Your task to perform on an android device: open app "Messenger Lite" Image 0: 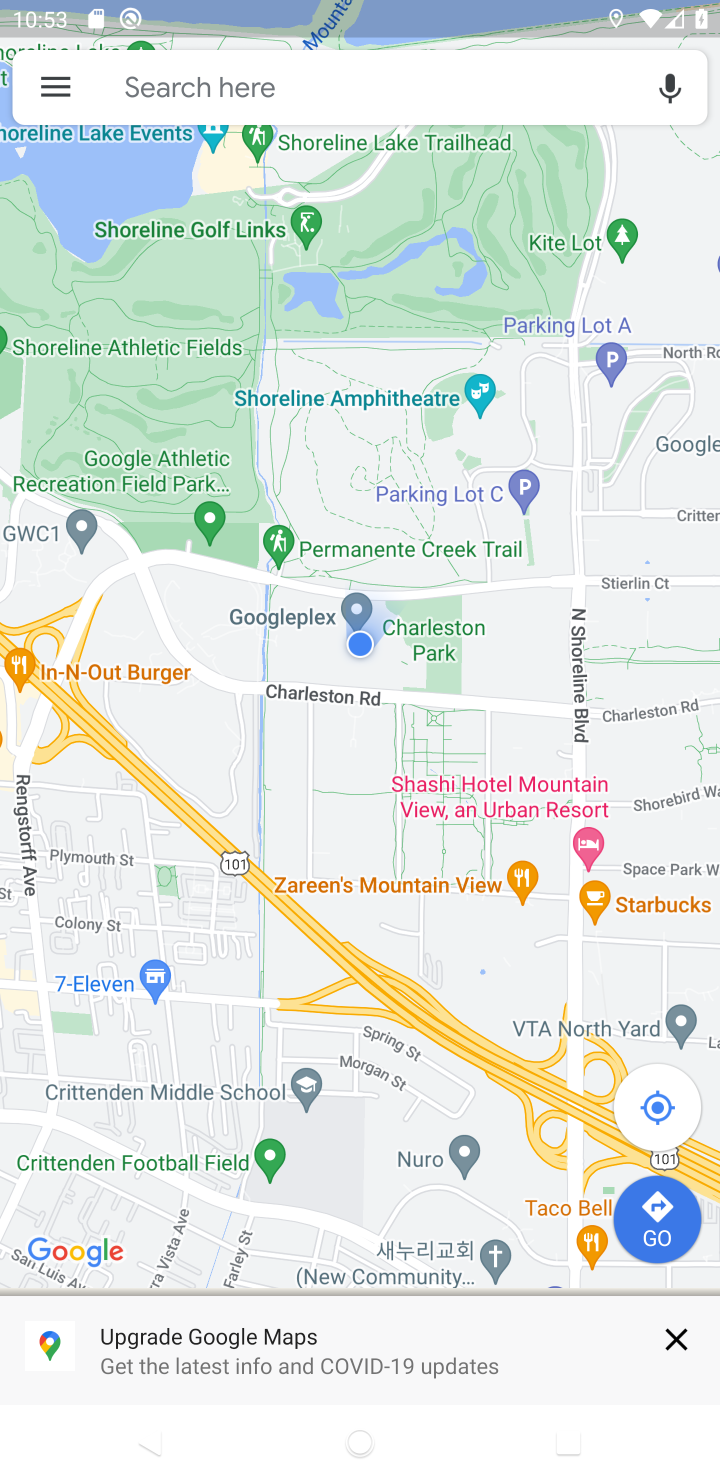
Step 0: press home button
Your task to perform on an android device: open app "Messenger Lite" Image 1: 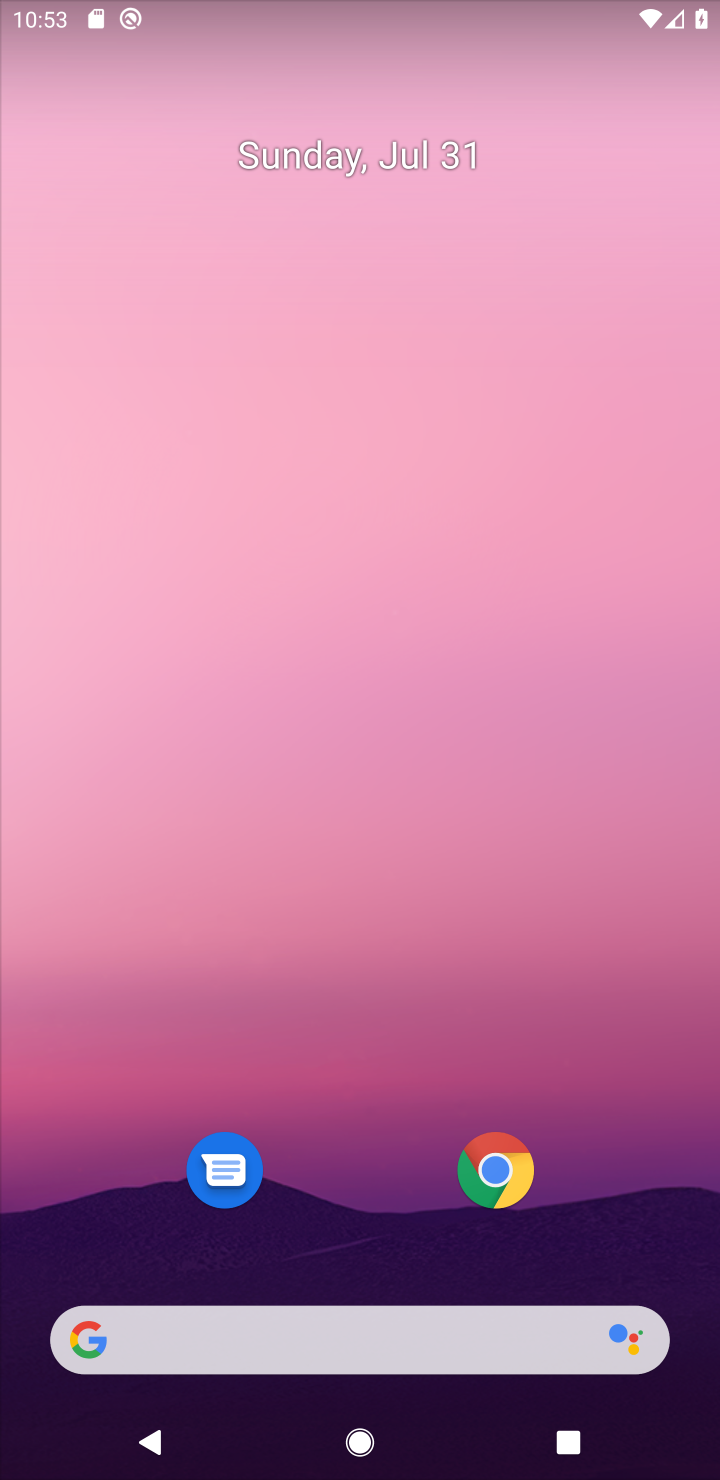
Step 1: drag from (574, 1088) to (366, 49)
Your task to perform on an android device: open app "Messenger Lite" Image 2: 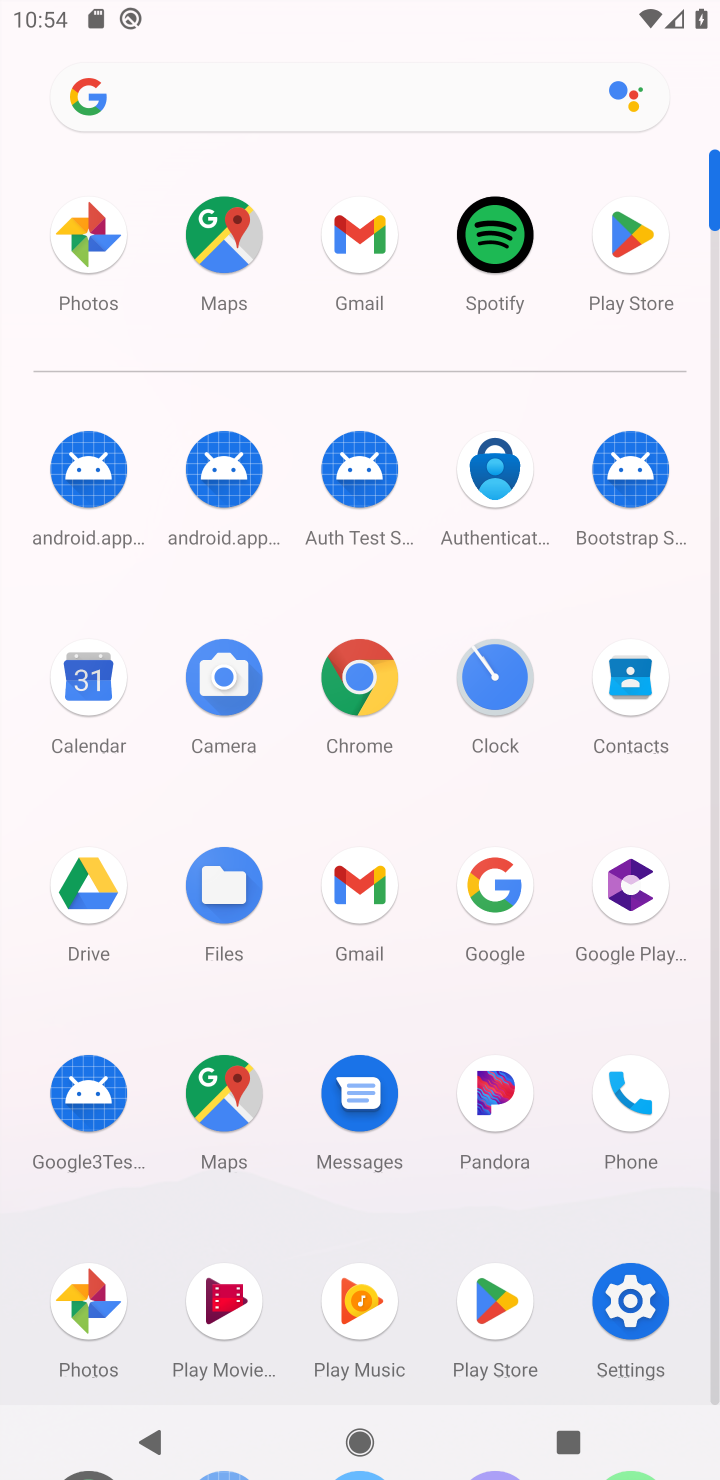
Step 2: click (610, 215)
Your task to perform on an android device: open app "Messenger Lite" Image 3: 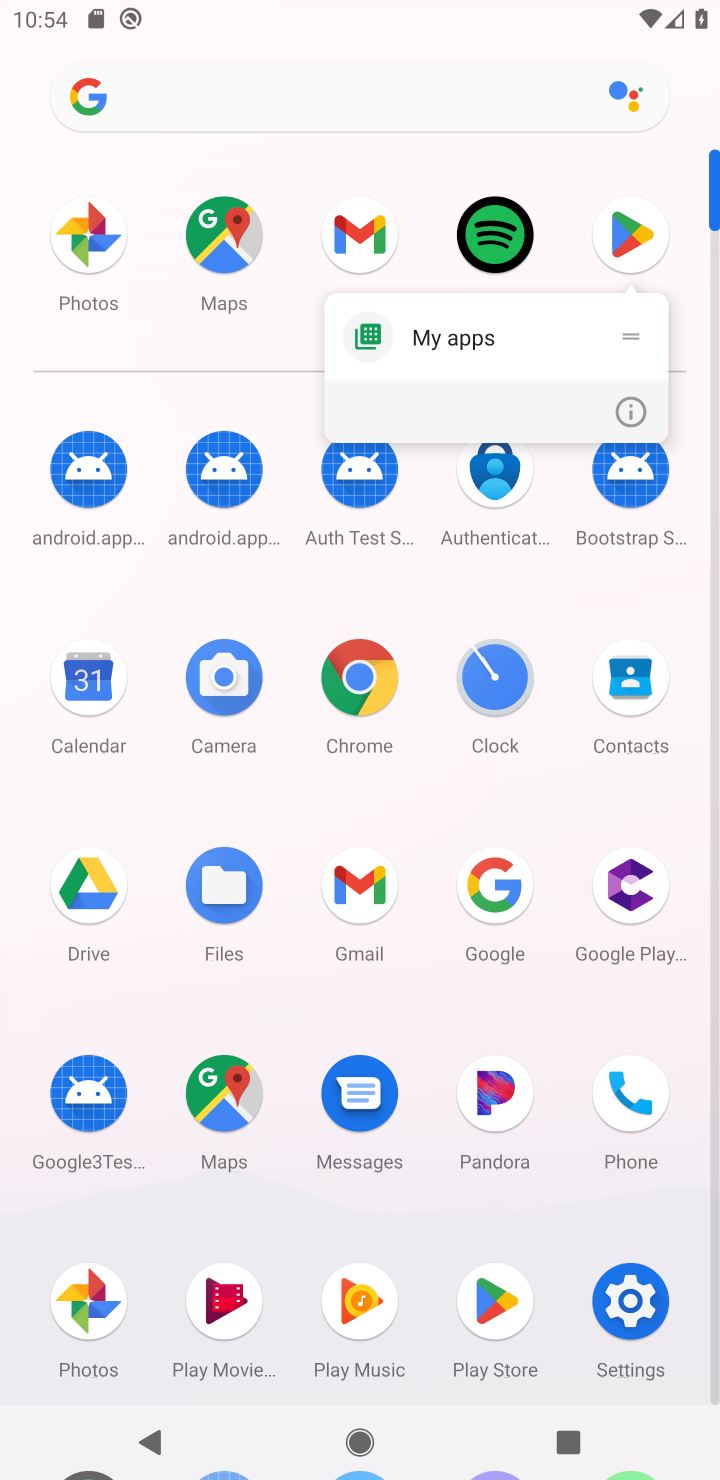
Step 3: click (612, 246)
Your task to perform on an android device: open app "Messenger Lite" Image 4: 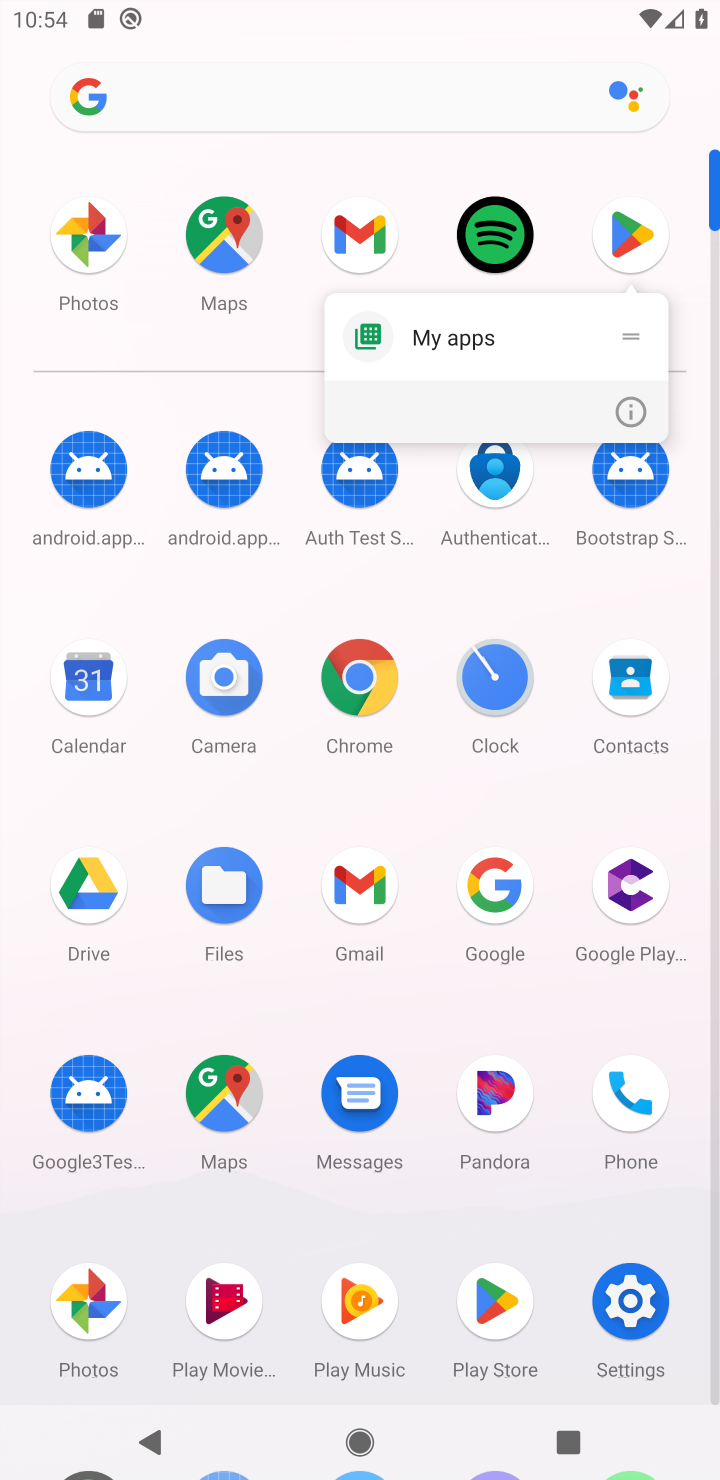
Step 4: click (638, 230)
Your task to perform on an android device: open app "Messenger Lite" Image 5: 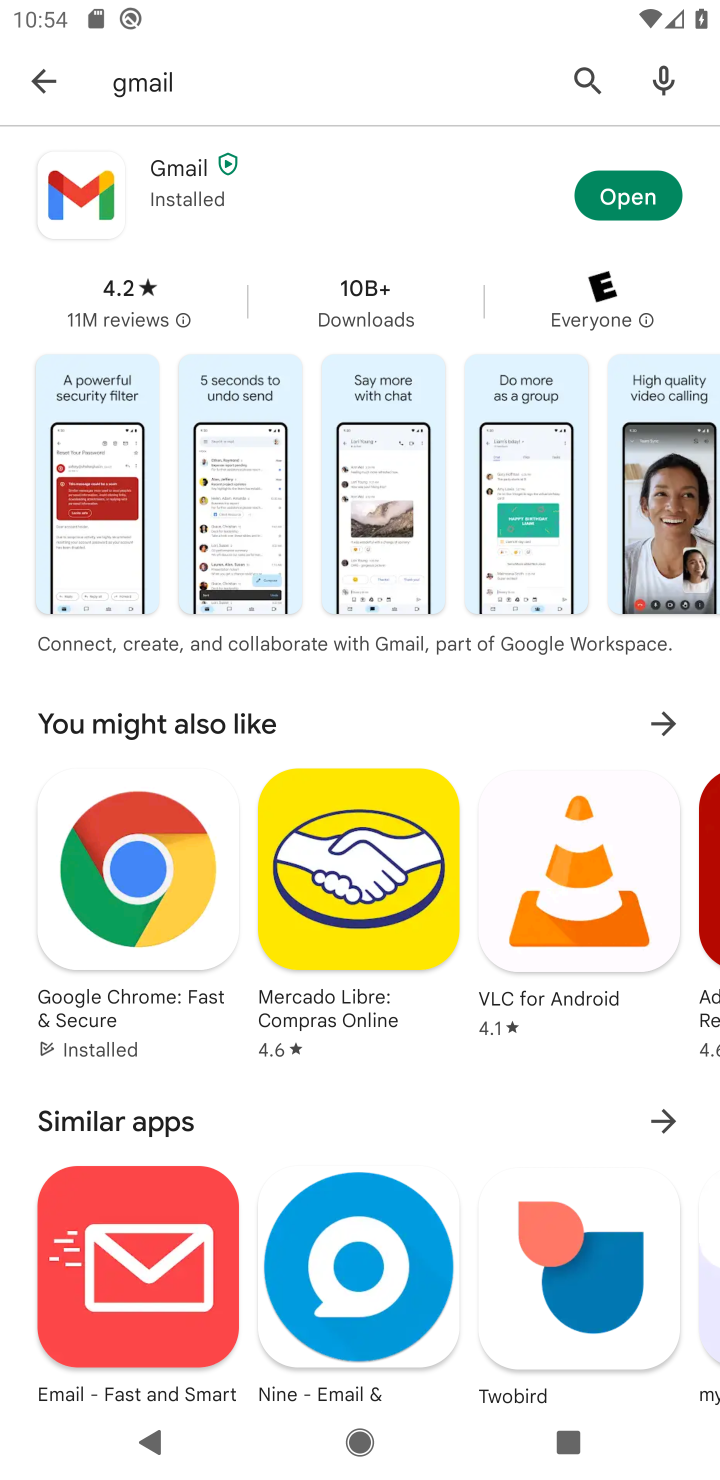
Step 5: press back button
Your task to perform on an android device: open app "Messenger Lite" Image 6: 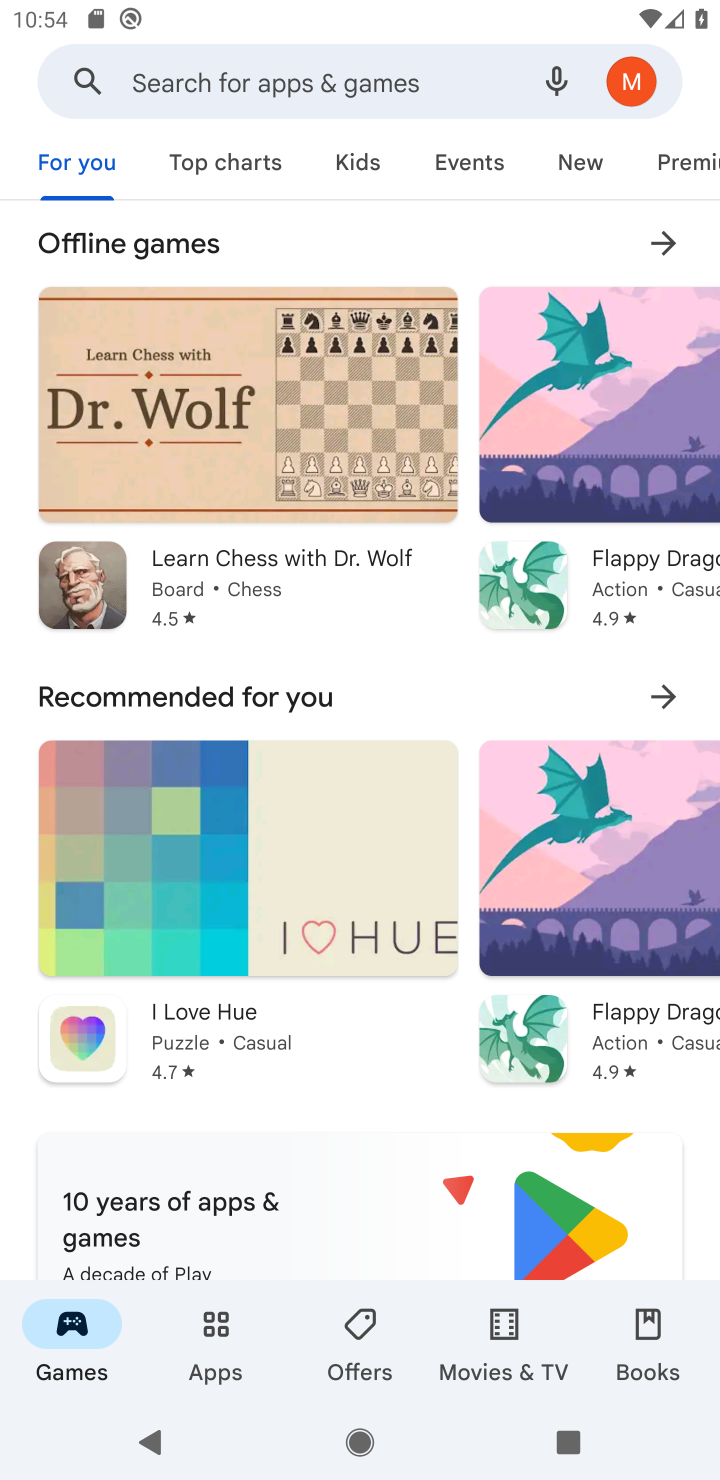
Step 6: click (216, 83)
Your task to perform on an android device: open app "Messenger Lite" Image 7: 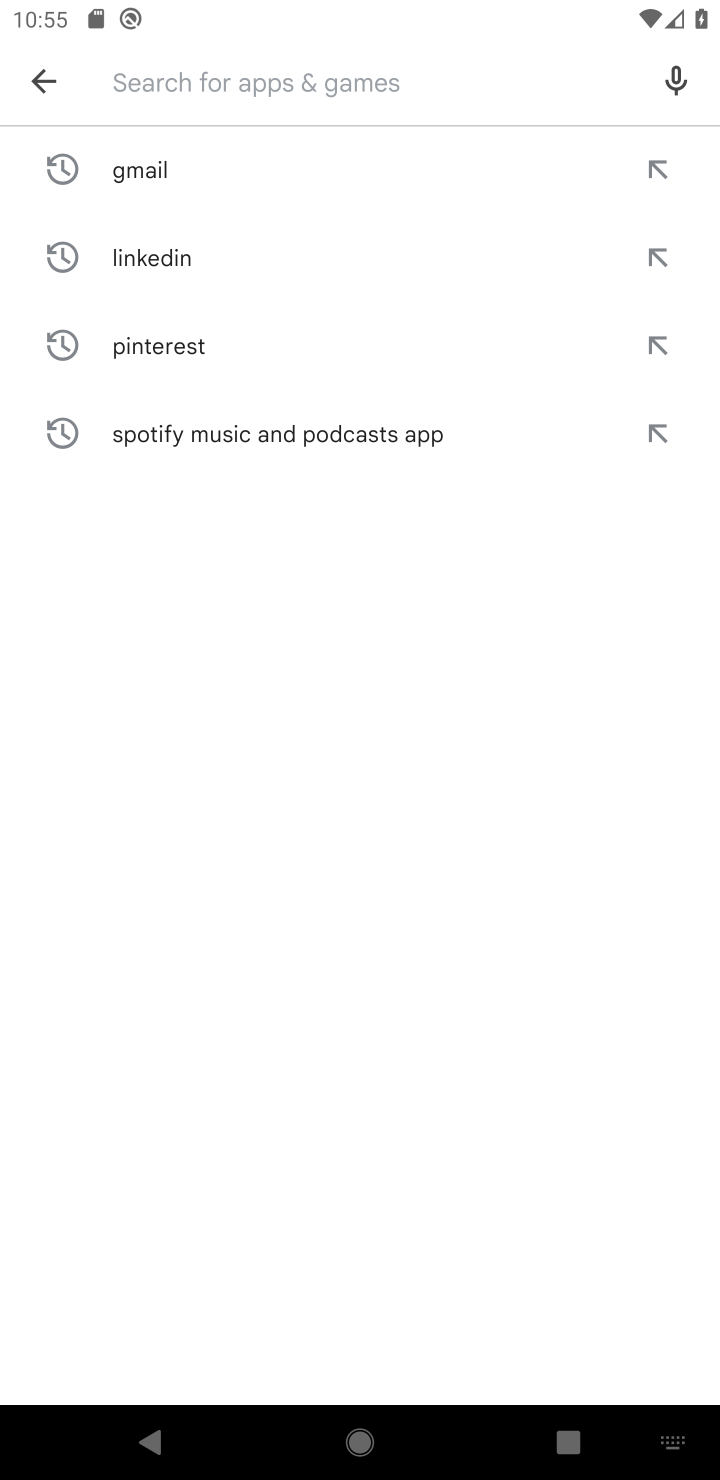
Step 7: type "Messenger Lite"
Your task to perform on an android device: open app "Messenger Lite" Image 8: 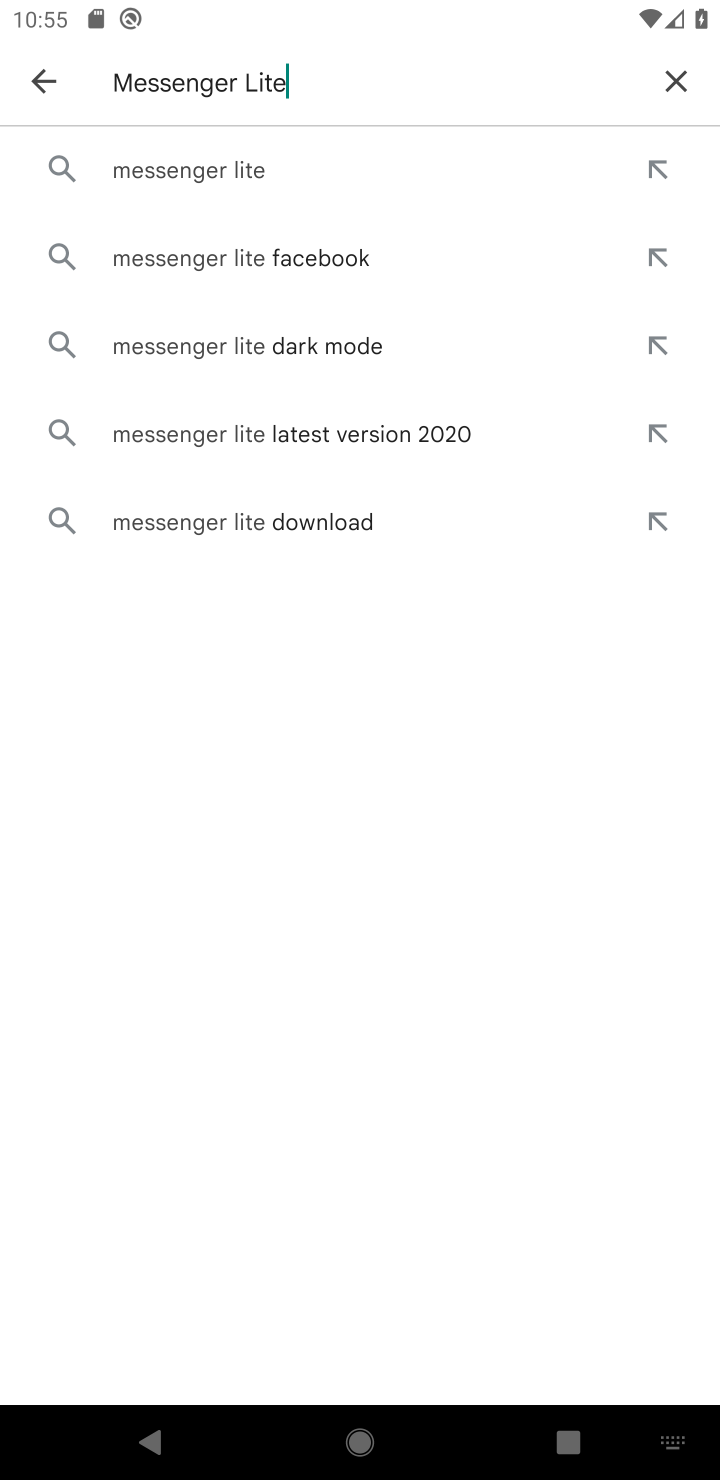
Step 8: click (207, 184)
Your task to perform on an android device: open app "Messenger Lite" Image 9: 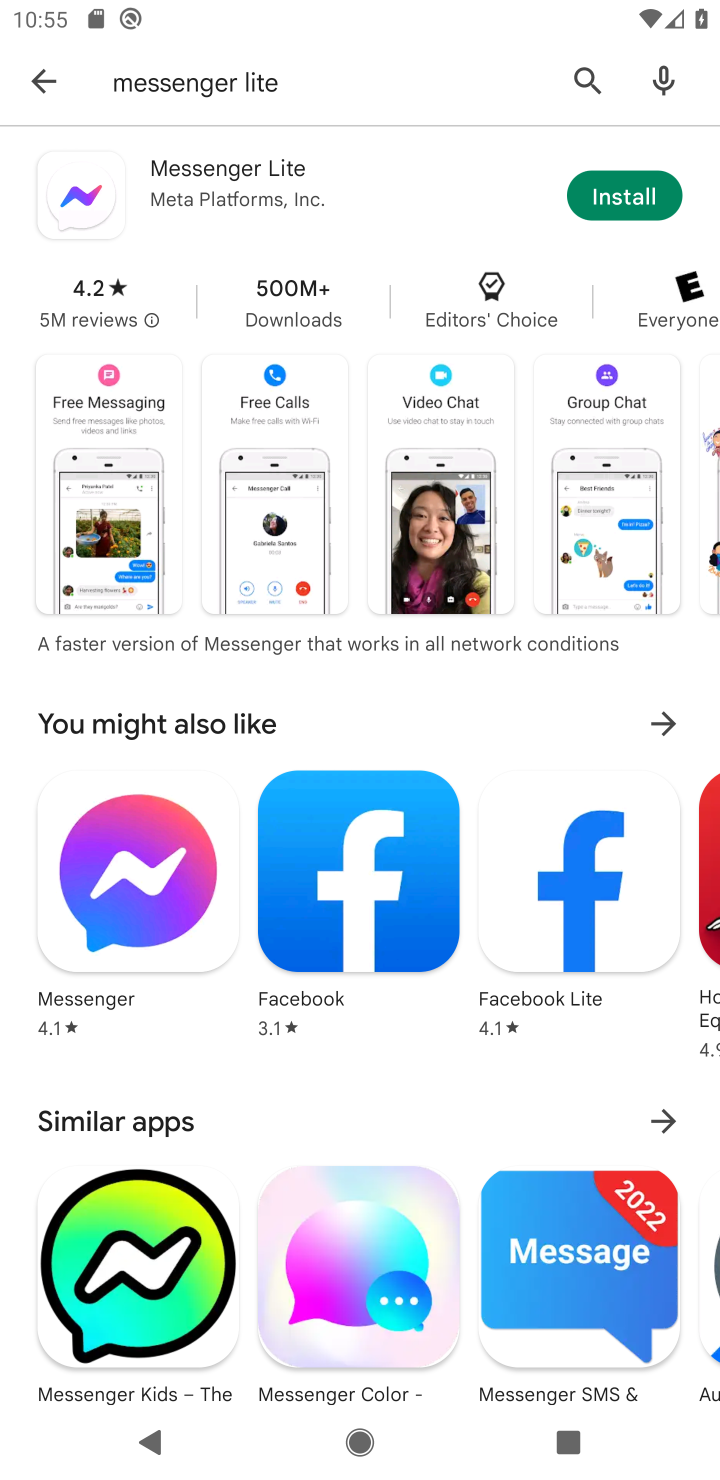
Step 9: task complete